Your task to perform on an android device: change the upload size in google photos Image 0: 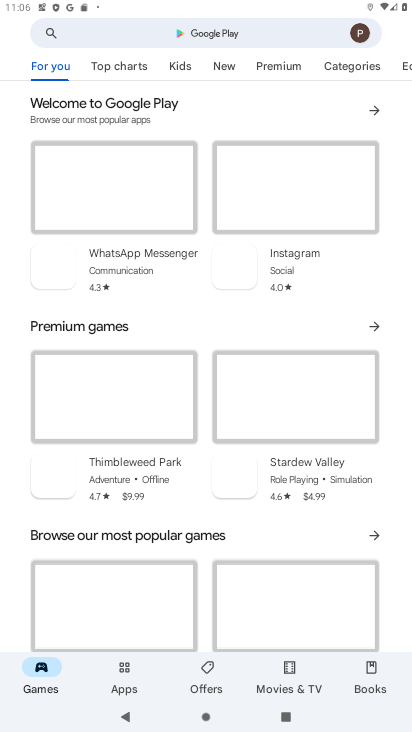
Step 0: press home button
Your task to perform on an android device: change the upload size in google photos Image 1: 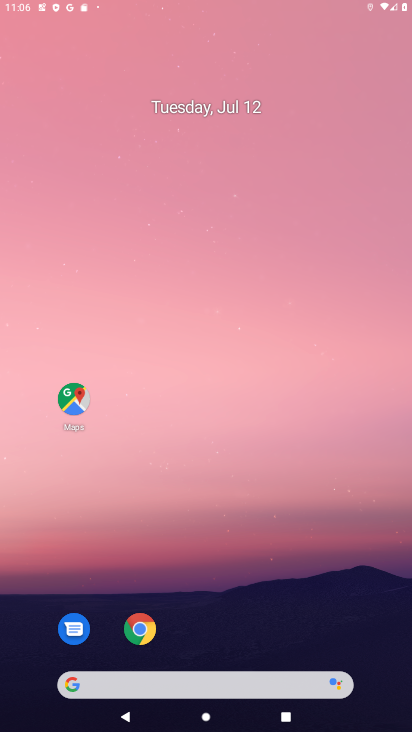
Step 1: drag from (197, 554) to (223, 241)
Your task to perform on an android device: change the upload size in google photos Image 2: 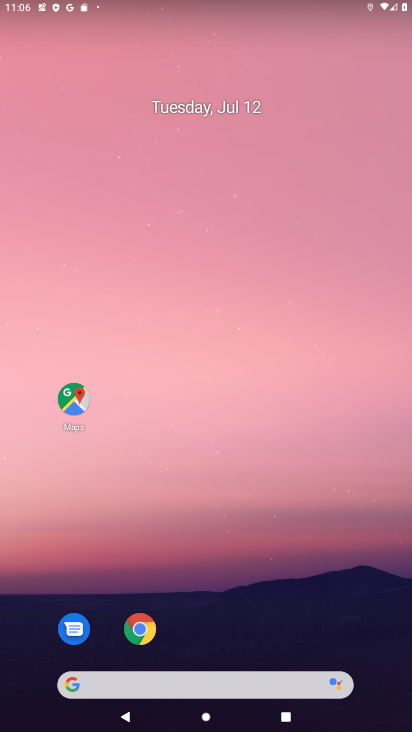
Step 2: drag from (179, 557) to (179, 229)
Your task to perform on an android device: change the upload size in google photos Image 3: 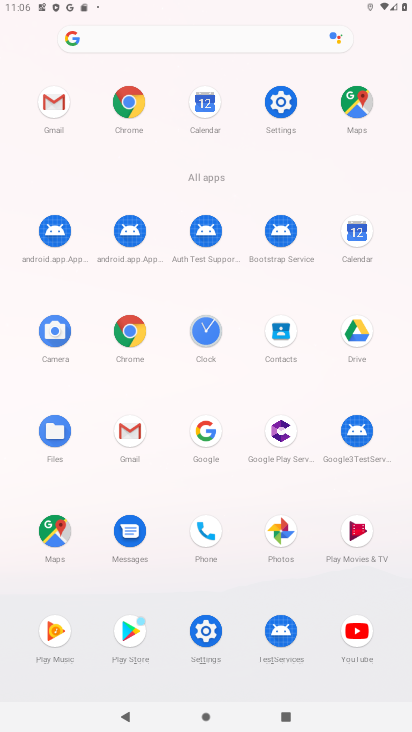
Step 3: click (274, 529)
Your task to perform on an android device: change the upload size in google photos Image 4: 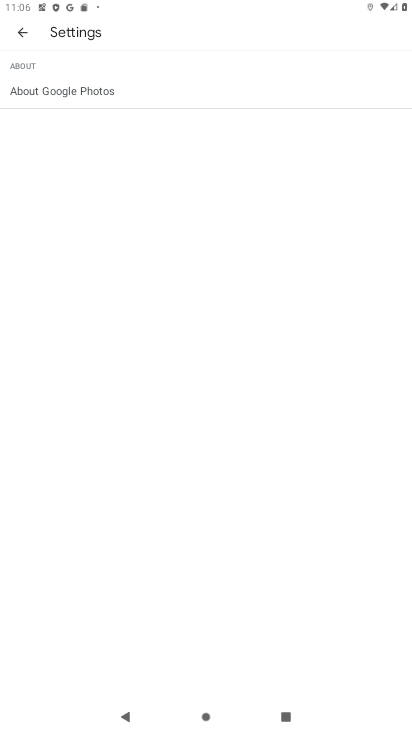
Step 4: click (14, 21)
Your task to perform on an android device: change the upload size in google photos Image 5: 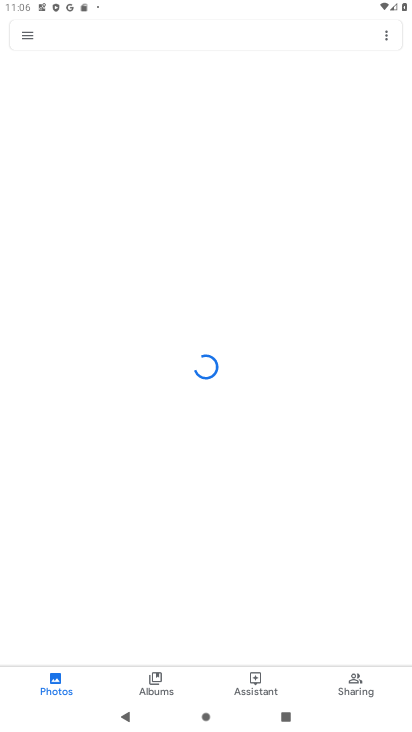
Step 5: click (23, 27)
Your task to perform on an android device: change the upload size in google photos Image 6: 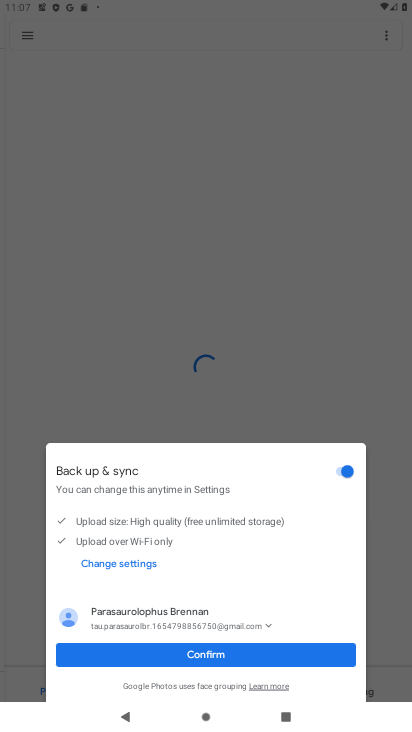
Step 6: click (238, 655)
Your task to perform on an android device: change the upload size in google photos Image 7: 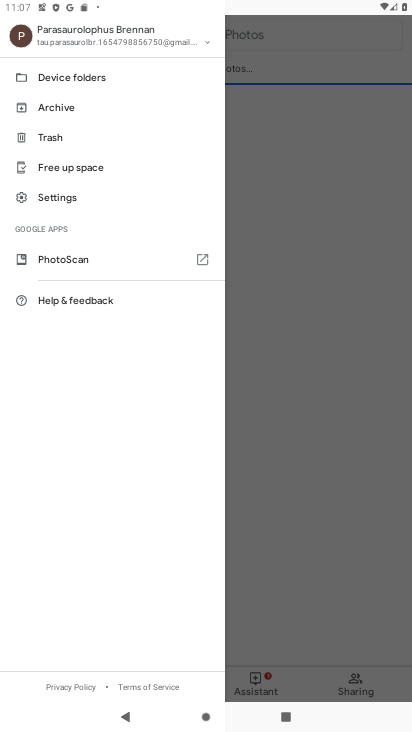
Step 7: click (63, 192)
Your task to perform on an android device: change the upload size in google photos Image 8: 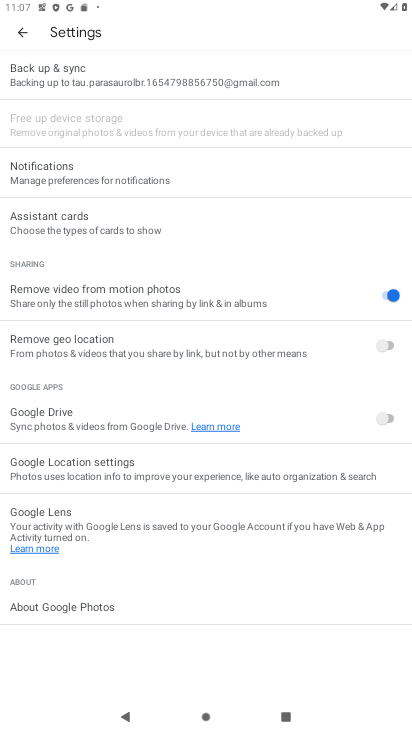
Step 8: click (142, 66)
Your task to perform on an android device: change the upload size in google photos Image 9: 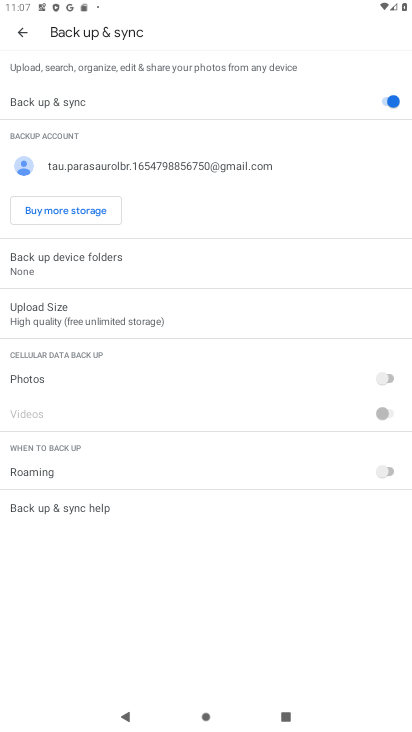
Step 9: click (77, 302)
Your task to perform on an android device: change the upload size in google photos Image 10: 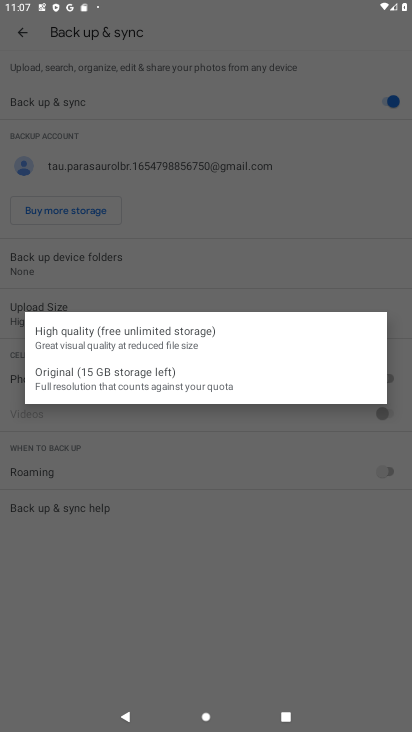
Step 10: click (116, 374)
Your task to perform on an android device: change the upload size in google photos Image 11: 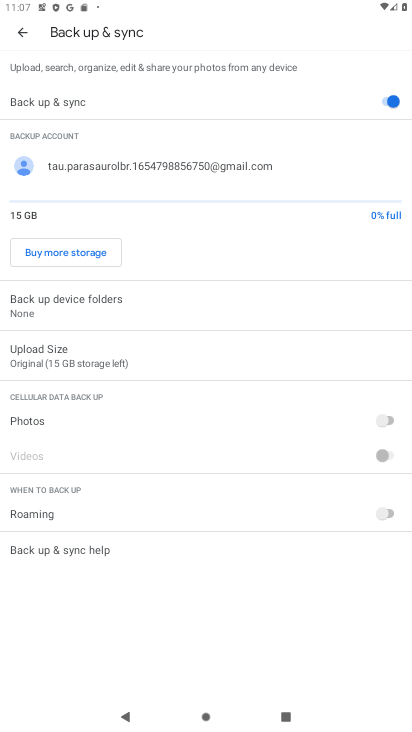
Step 11: task complete